Your task to perform on an android device: Open Youtube and go to the subscriptions tab Image 0: 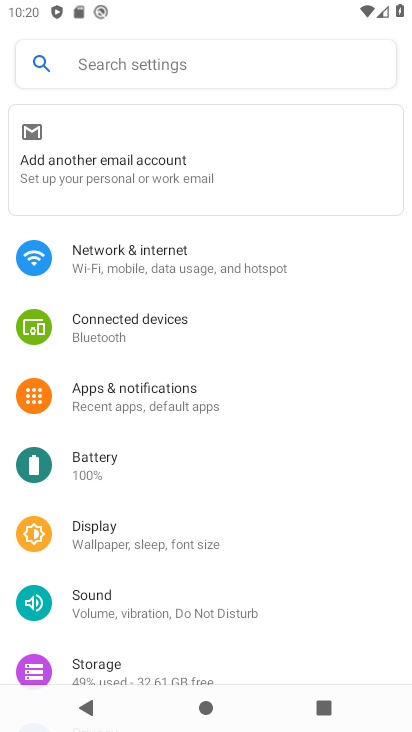
Step 0: press home button
Your task to perform on an android device: Open Youtube and go to the subscriptions tab Image 1: 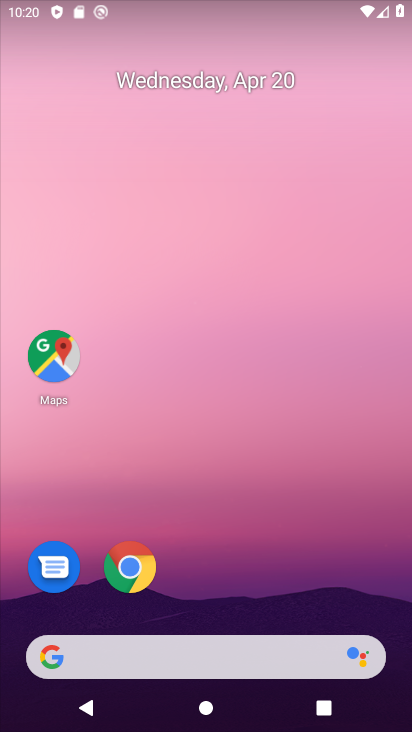
Step 1: drag from (235, 592) to (281, 47)
Your task to perform on an android device: Open Youtube and go to the subscriptions tab Image 2: 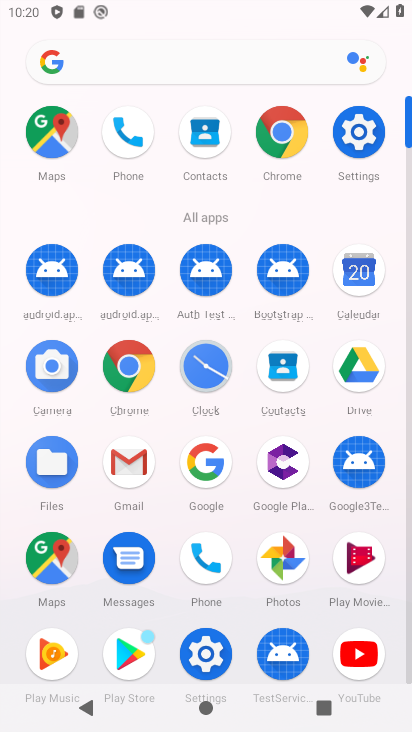
Step 2: click (360, 656)
Your task to perform on an android device: Open Youtube and go to the subscriptions tab Image 3: 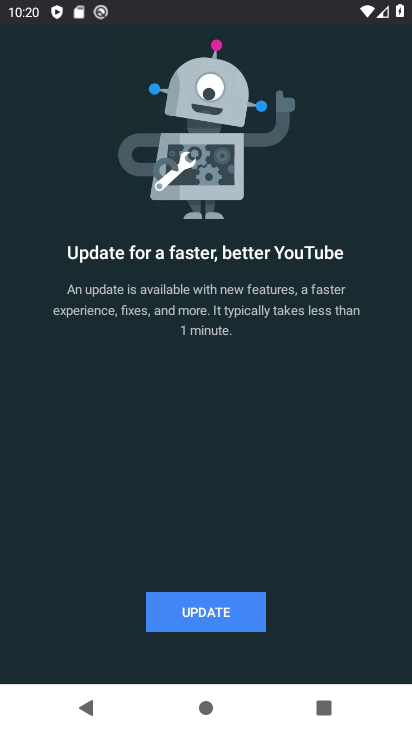
Step 3: click (219, 617)
Your task to perform on an android device: Open Youtube and go to the subscriptions tab Image 4: 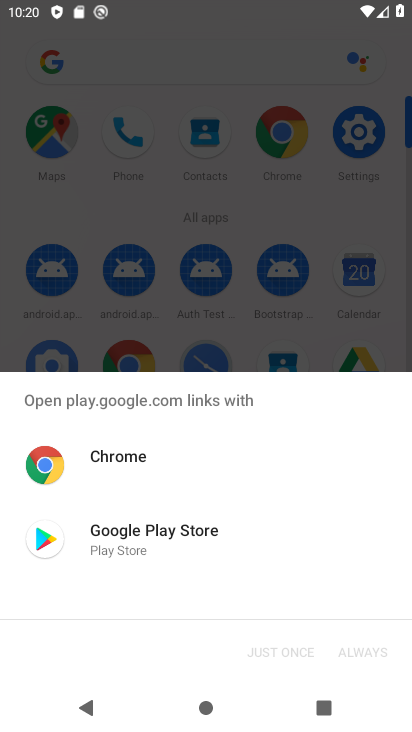
Step 4: click (161, 538)
Your task to perform on an android device: Open Youtube and go to the subscriptions tab Image 5: 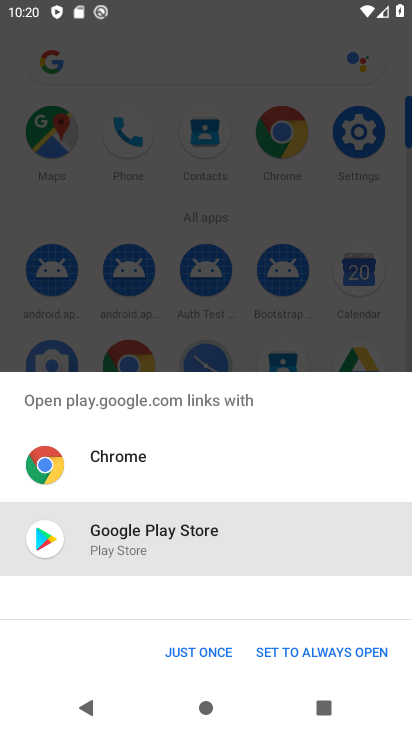
Step 5: click (212, 653)
Your task to perform on an android device: Open Youtube and go to the subscriptions tab Image 6: 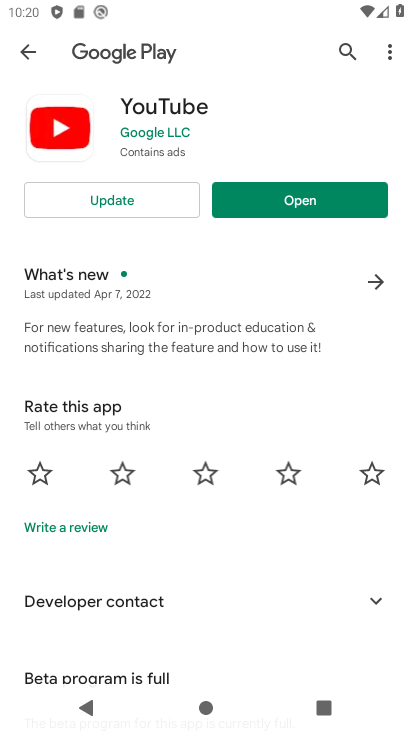
Step 6: click (108, 191)
Your task to perform on an android device: Open Youtube and go to the subscriptions tab Image 7: 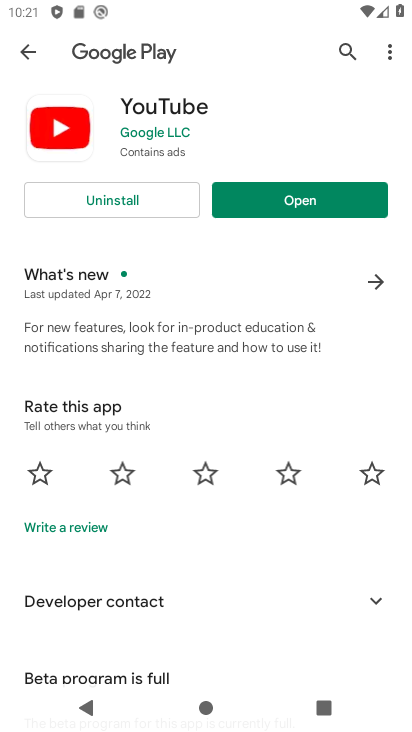
Step 7: click (314, 201)
Your task to perform on an android device: Open Youtube and go to the subscriptions tab Image 8: 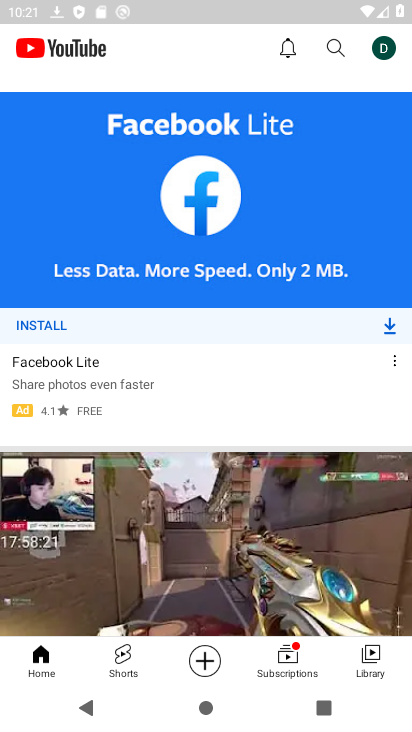
Step 8: click (289, 661)
Your task to perform on an android device: Open Youtube and go to the subscriptions tab Image 9: 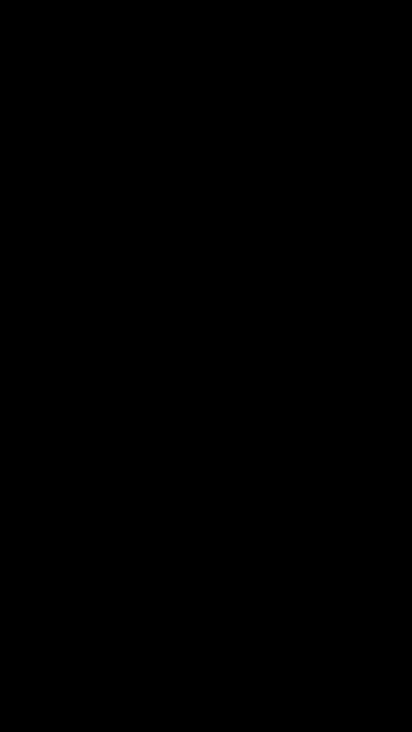
Step 9: task complete